Your task to perform on an android device: Clear the cart on ebay. Add "logitech g903" to the cart on ebay, then select checkout. Image 0: 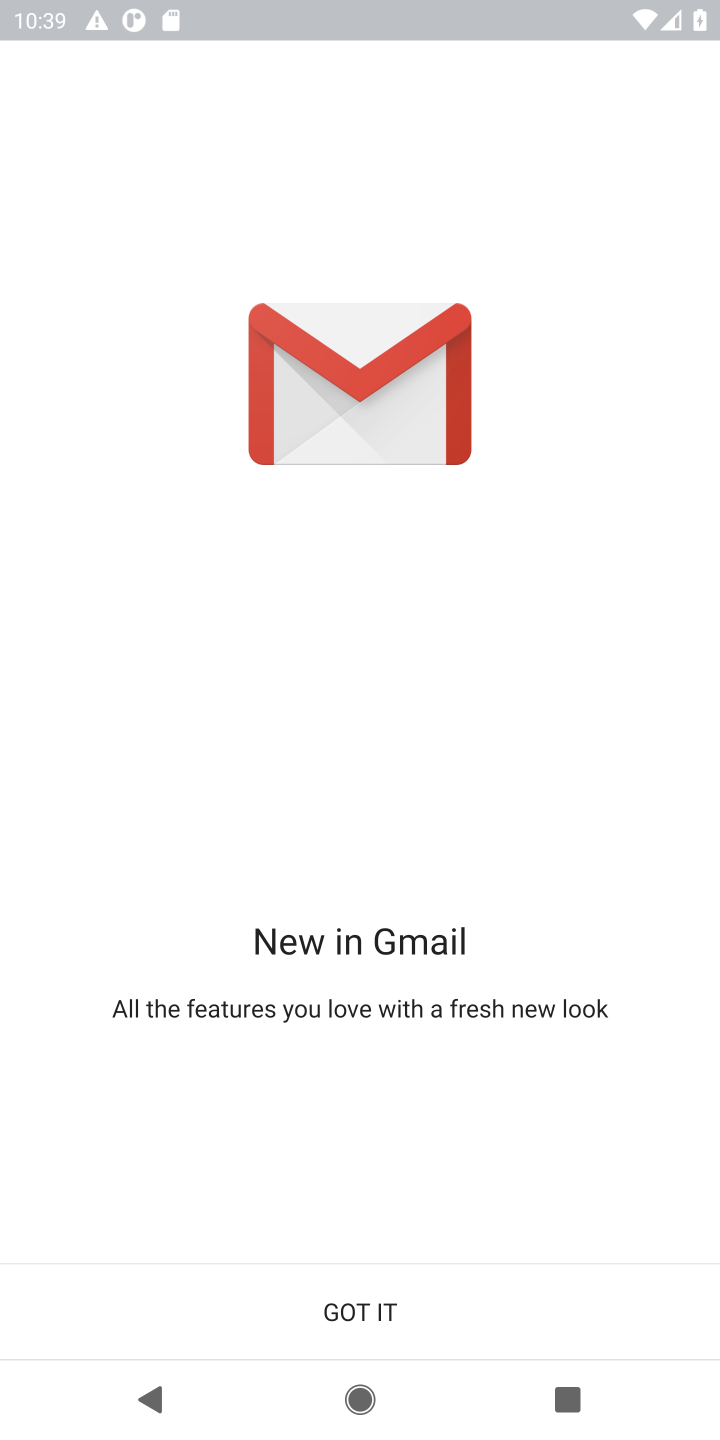
Step 0: press home button
Your task to perform on an android device: Clear the cart on ebay. Add "logitech g903" to the cart on ebay, then select checkout. Image 1: 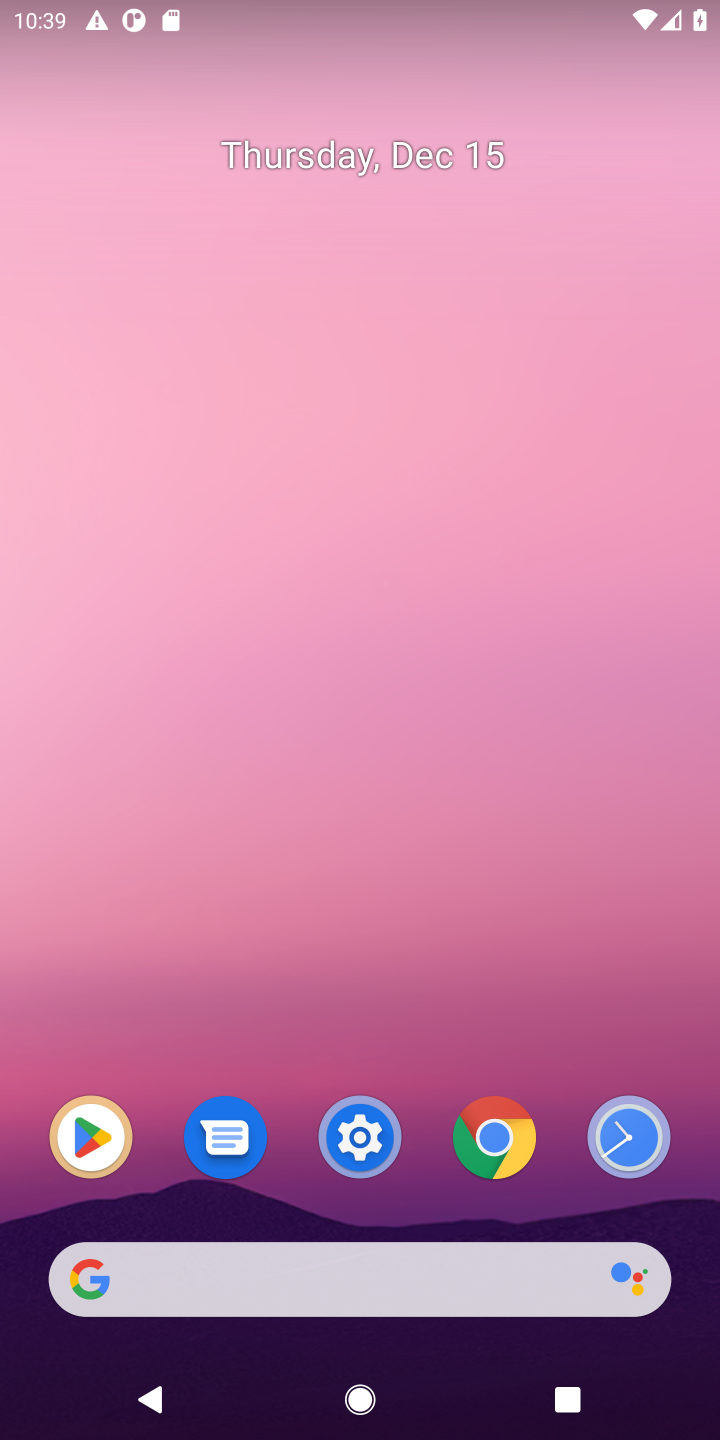
Step 1: drag from (403, 1268) to (331, 65)
Your task to perform on an android device: Clear the cart on ebay. Add "logitech g903" to the cart on ebay, then select checkout. Image 2: 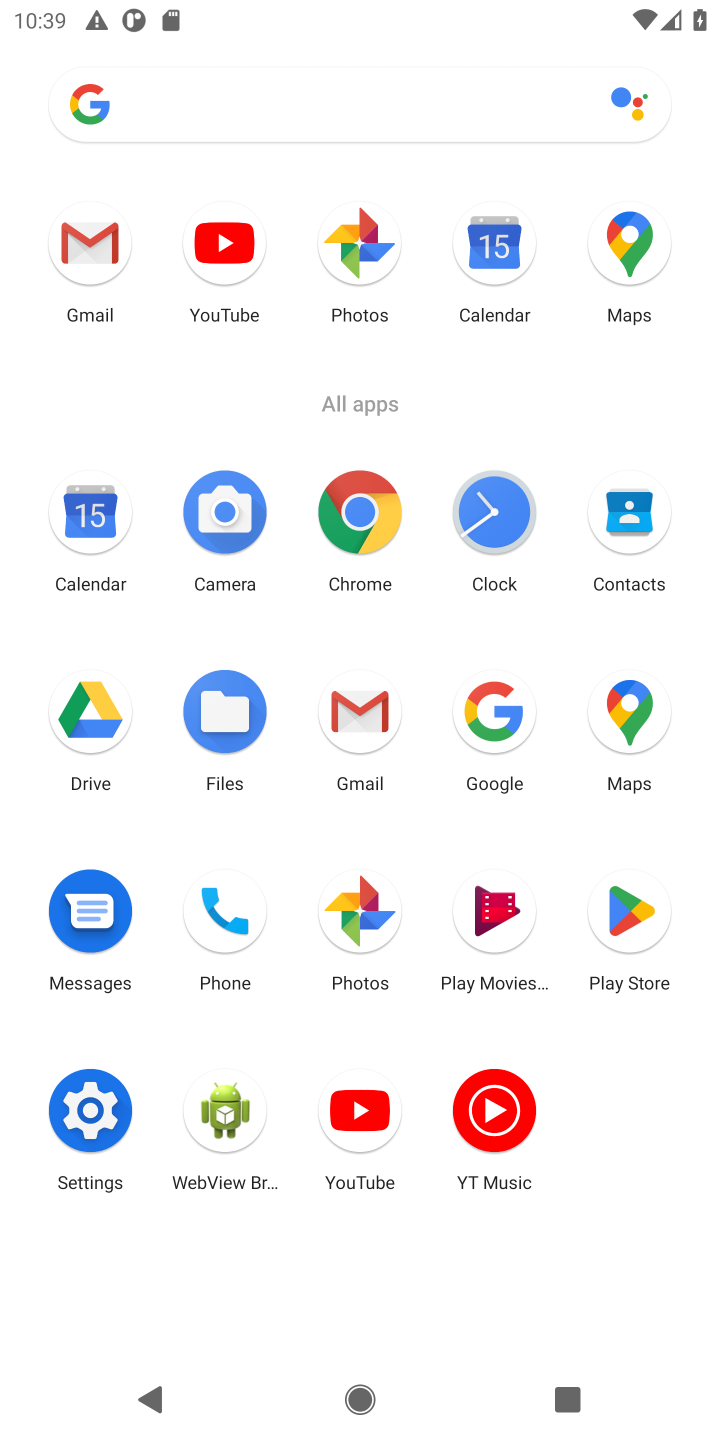
Step 2: click (493, 722)
Your task to perform on an android device: Clear the cart on ebay. Add "logitech g903" to the cart on ebay, then select checkout. Image 3: 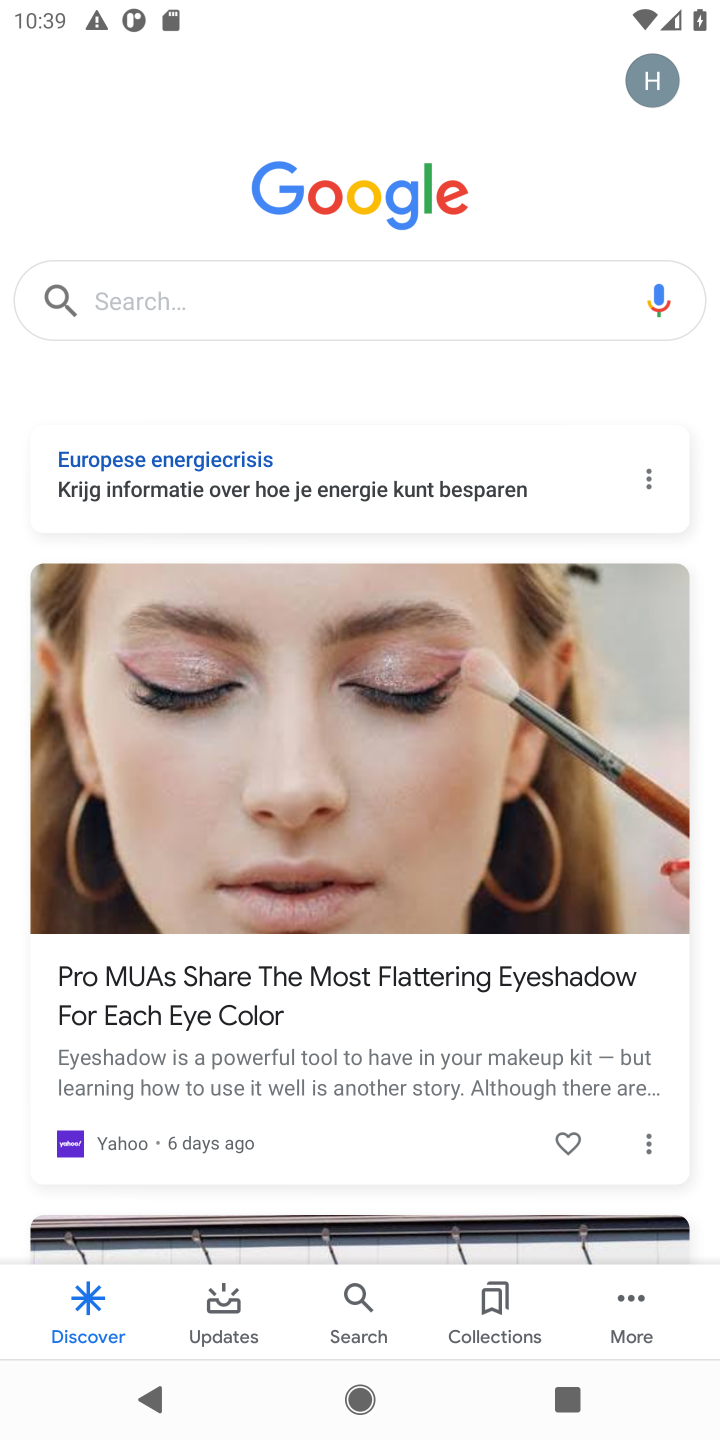
Step 3: click (130, 303)
Your task to perform on an android device: Clear the cart on ebay. Add "logitech g903" to the cart on ebay, then select checkout. Image 4: 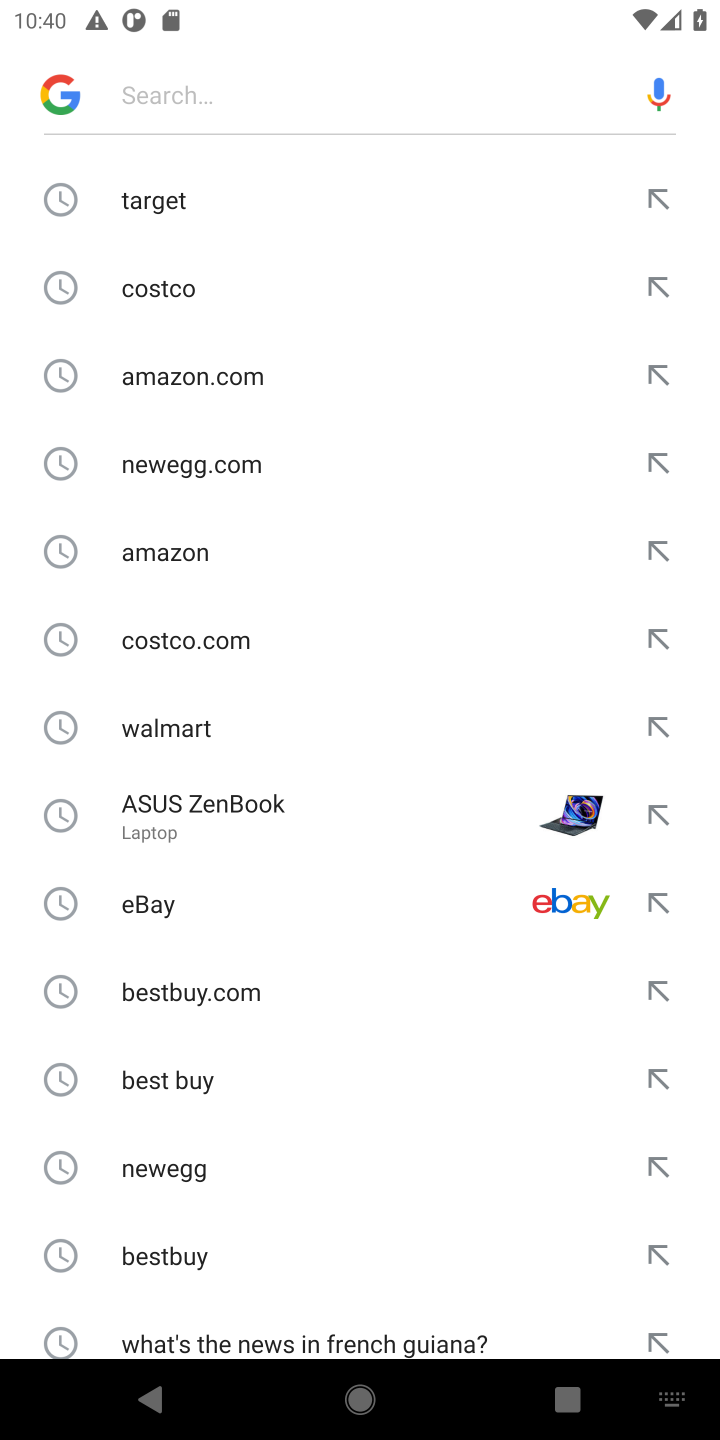
Step 4: click (153, 922)
Your task to perform on an android device: Clear the cart on ebay. Add "logitech g903" to the cart on ebay, then select checkout. Image 5: 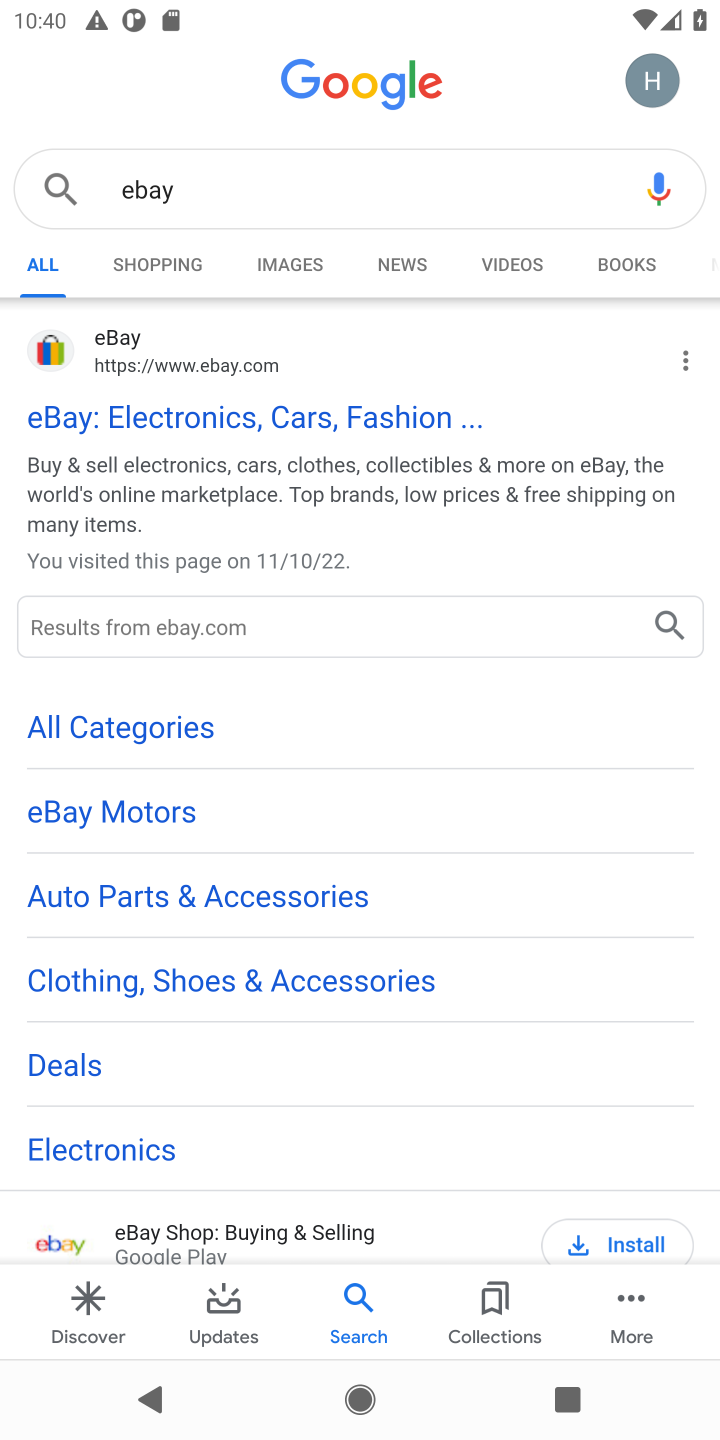
Step 5: click (258, 428)
Your task to perform on an android device: Clear the cart on ebay. Add "logitech g903" to the cart on ebay, then select checkout. Image 6: 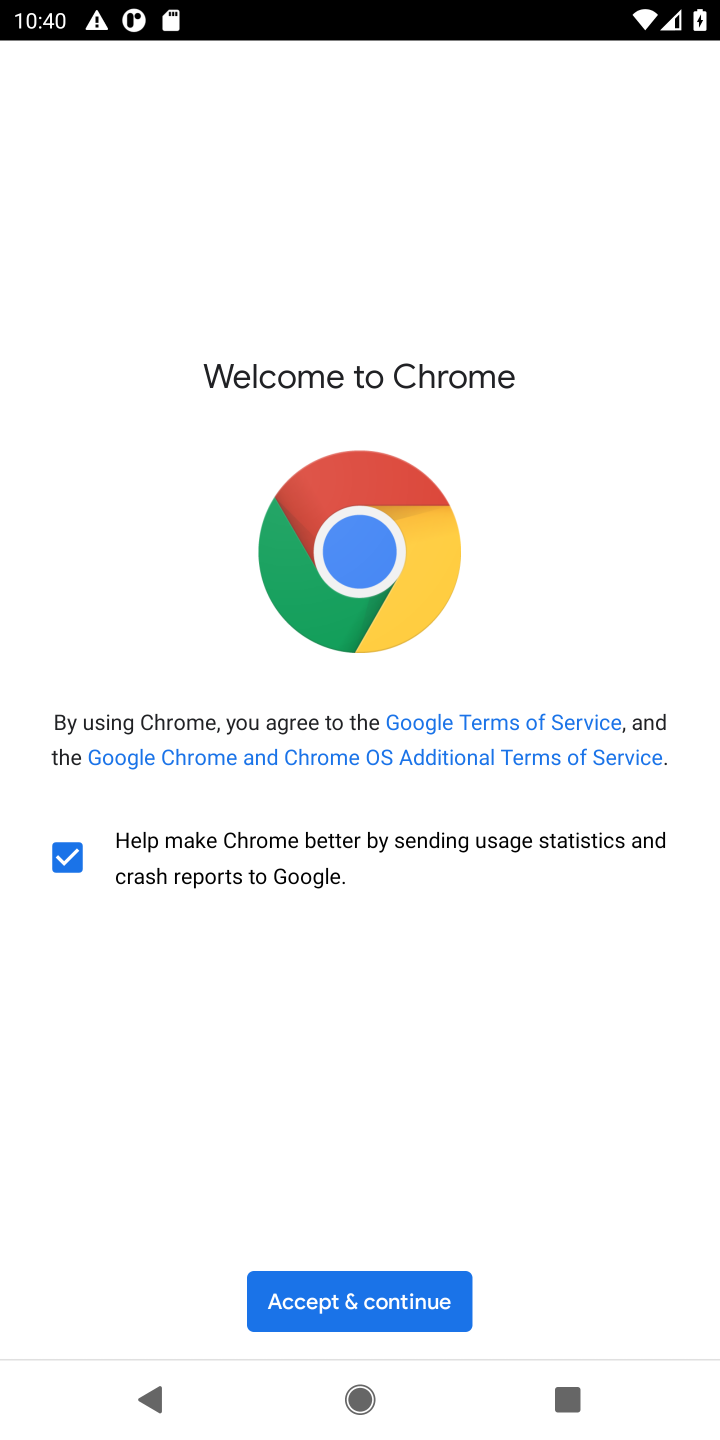
Step 6: click (338, 1306)
Your task to perform on an android device: Clear the cart on ebay. Add "logitech g903" to the cart on ebay, then select checkout. Image 7: 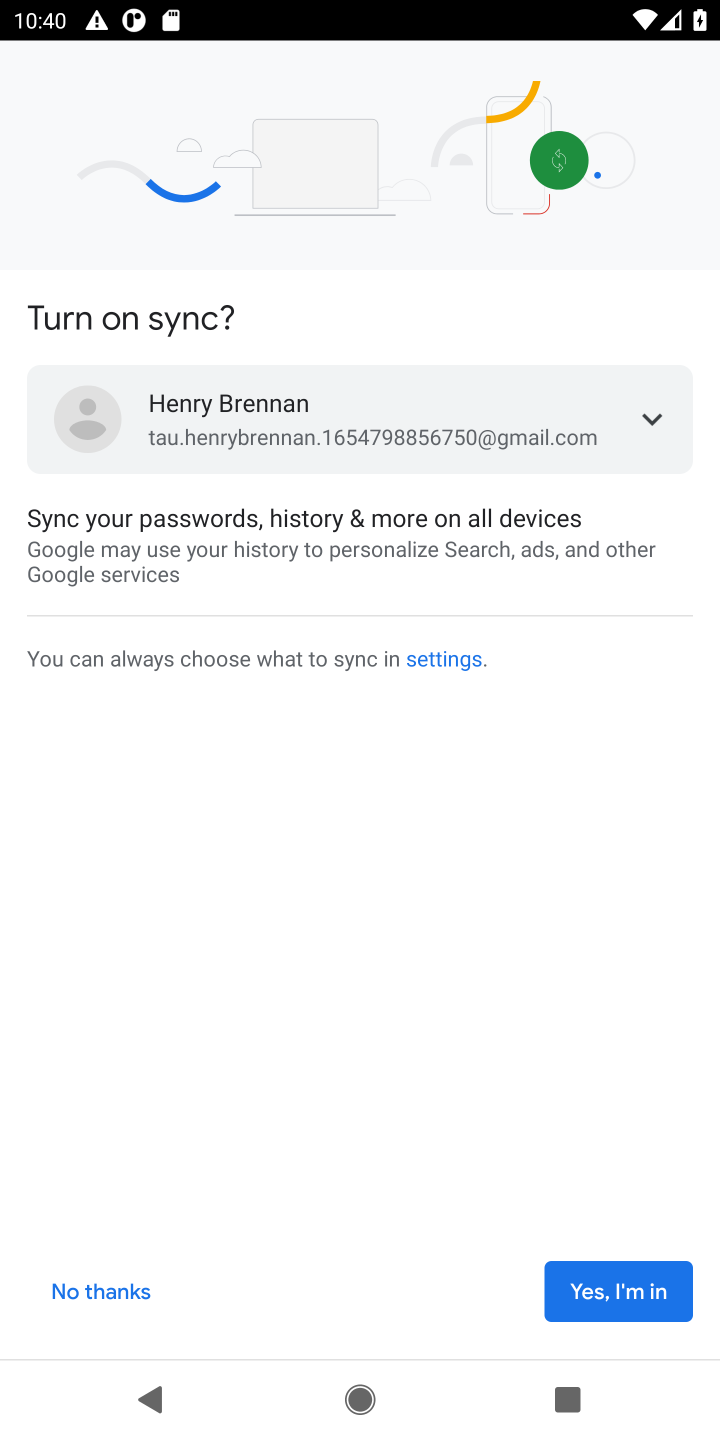
Step 7: click (620, 1286)
Your task to perform on an android device: Clear the cart on ebay. Add "logitech g903" to the cart on ebay, then select checkout. Image 8: 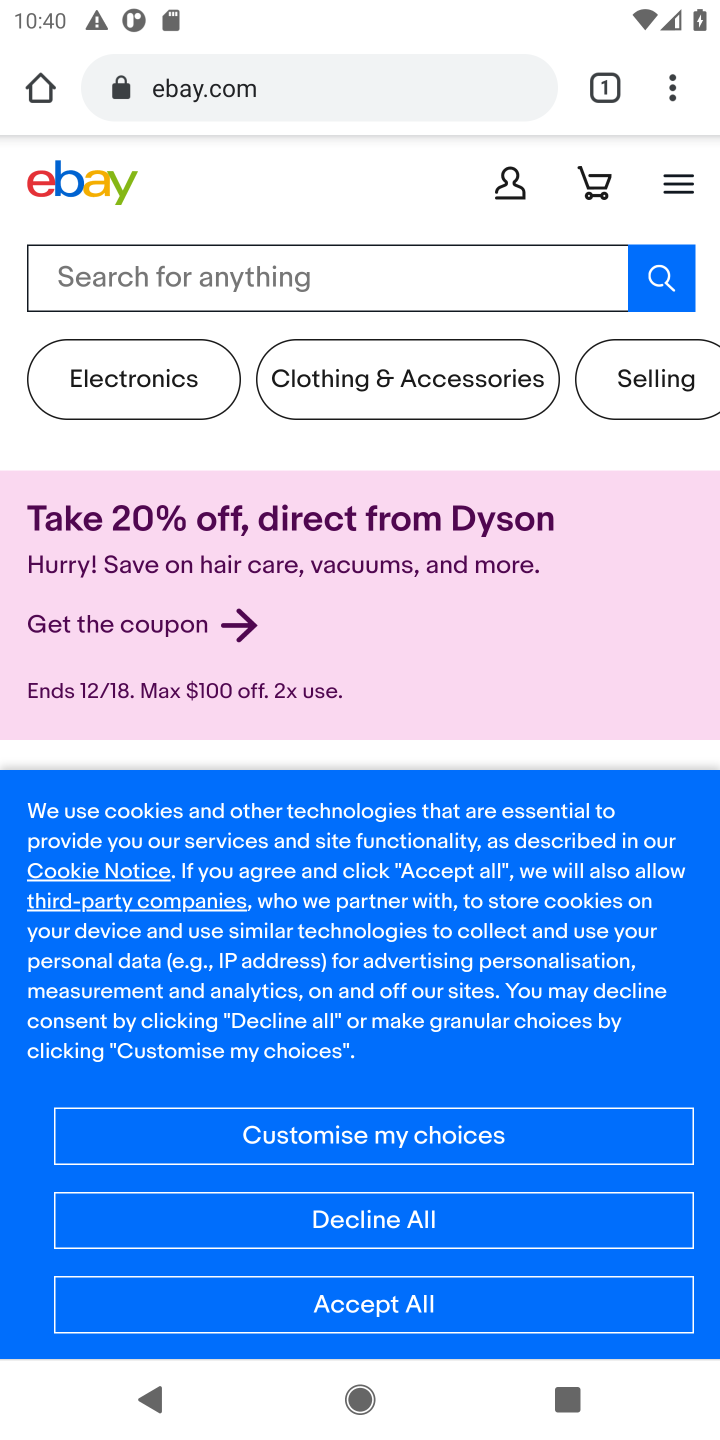
Step 8: click (194, 277)
Your task to perform on an android device: Clear the cart on ebay. Add "logitech g903" to the cart on ebay, then select checkout. Image 9: 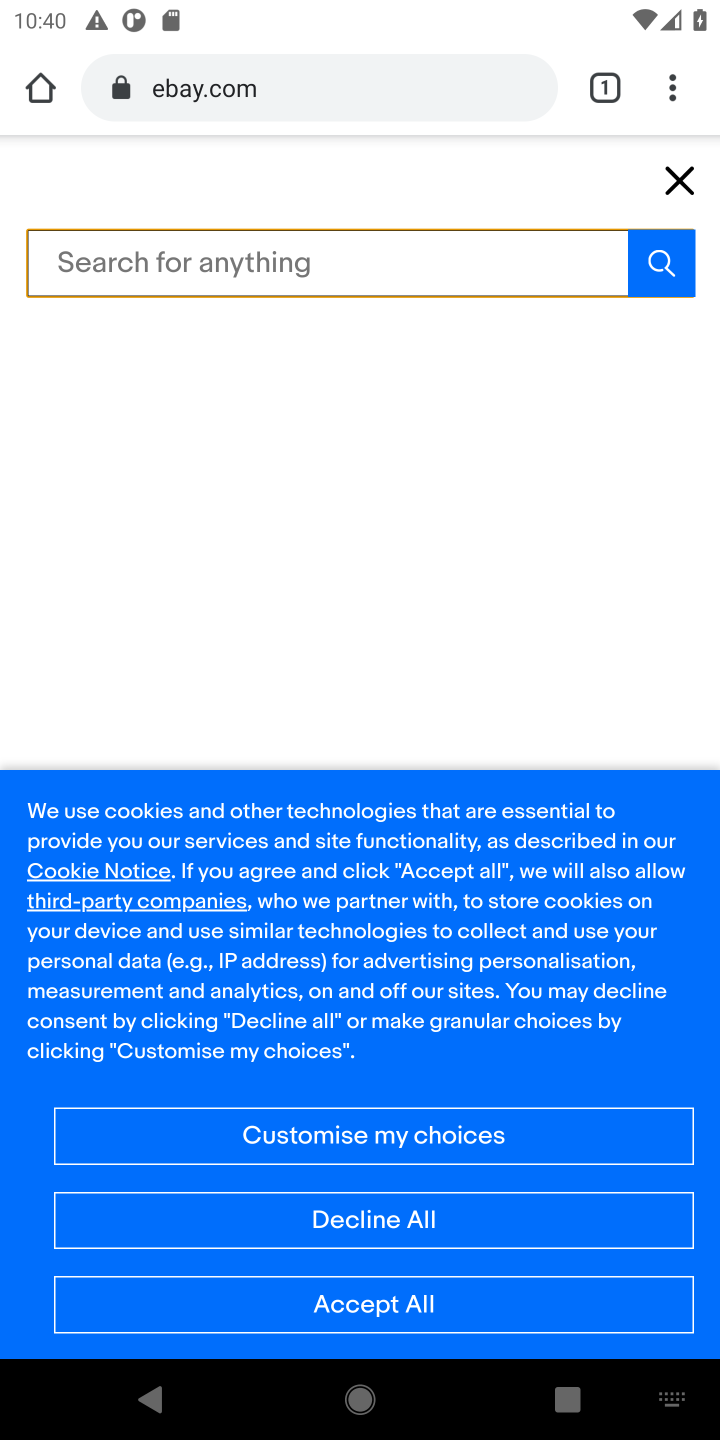
Step 9: click (120, 245)
Your task to perform on an android device: Clear the cart on ebay. Add "logitech g903" to the cart on ebay, then select checkout. Image 10: 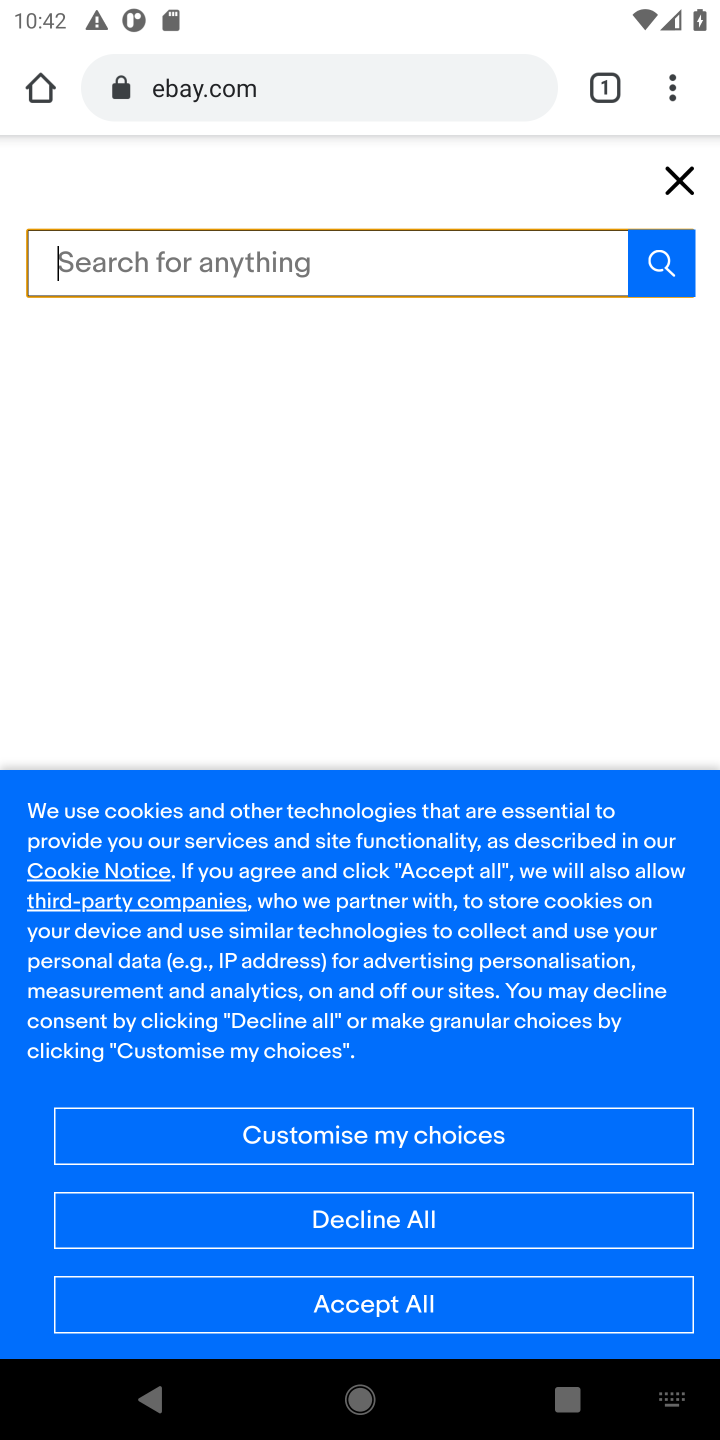
Step 10: type "logitech g903"
Your task to perform on an android device: Clear the cart on ebay. Add "logitech g903" to the cart on ebay, then select checkout. Image 11: 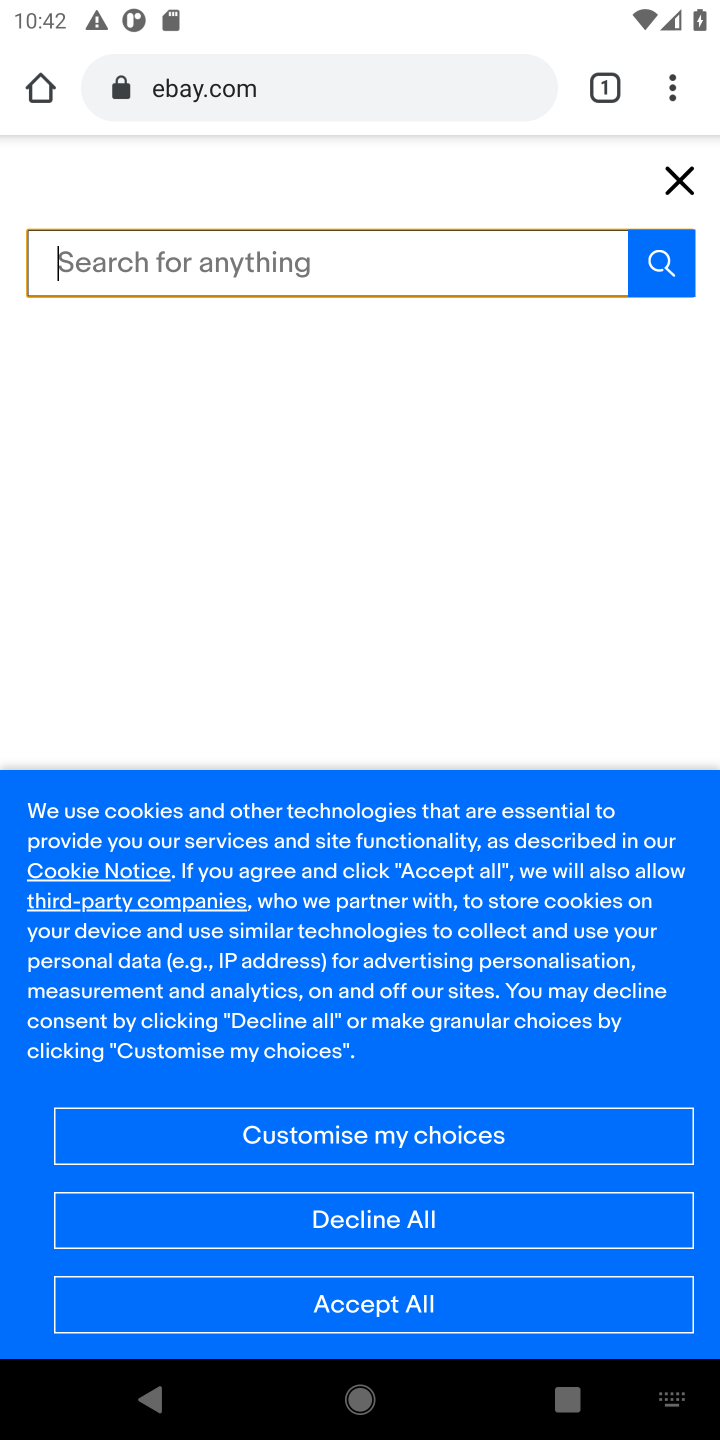
Step 11: click (676, 273)
Your task to perform on an android device: Clear the cart on ebay. Add "logitech g903" to the cart on ebay, then select checkout. Image 12: 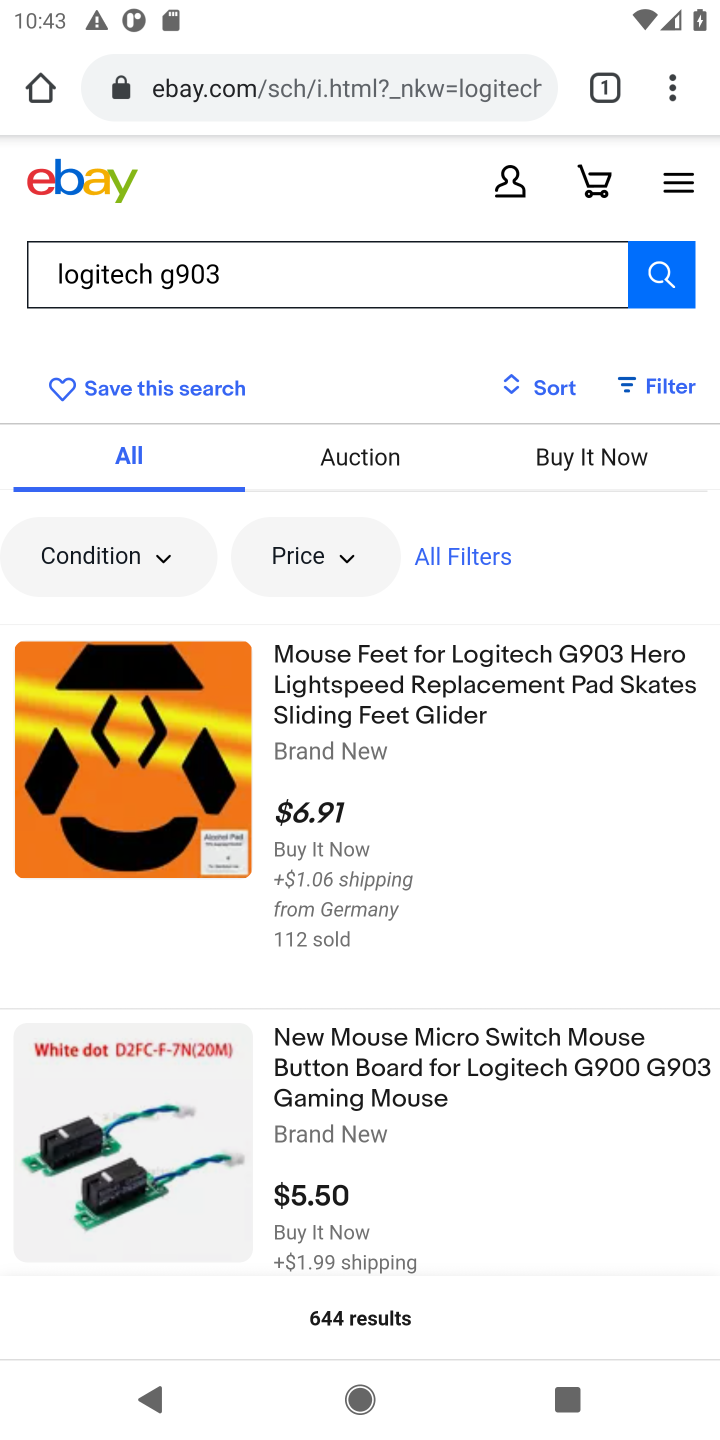
Step 12: click (481, 681)
Your task to perform on an android device: Clear the cart on ebay. Add "logitech g903" to the cart on ebay, then select checkout. Image 13: 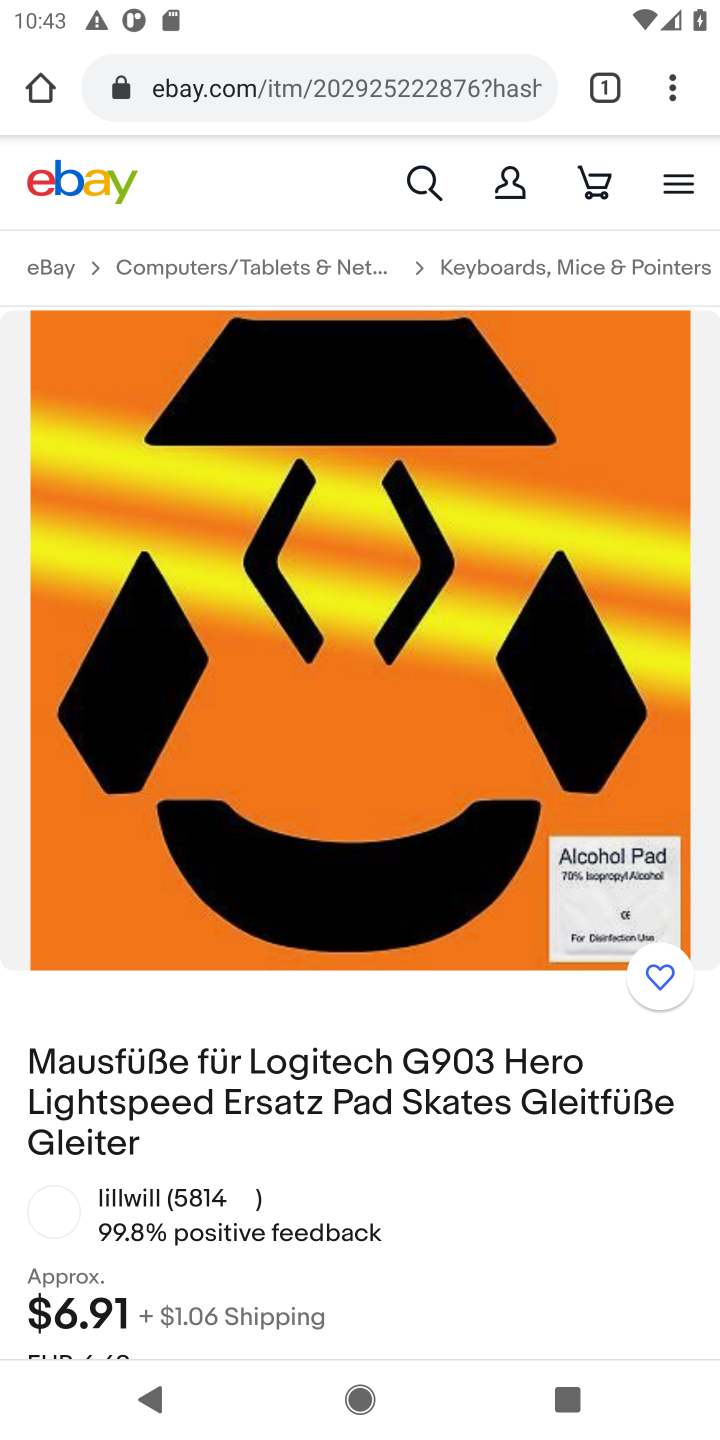
Step 13: drag from (460, 1196) to (353, 491)
Your task to perform on an android device: Clear the cart on ebay. Add "logitech g903" to the cart on ebay, then select checkout. Image 14: 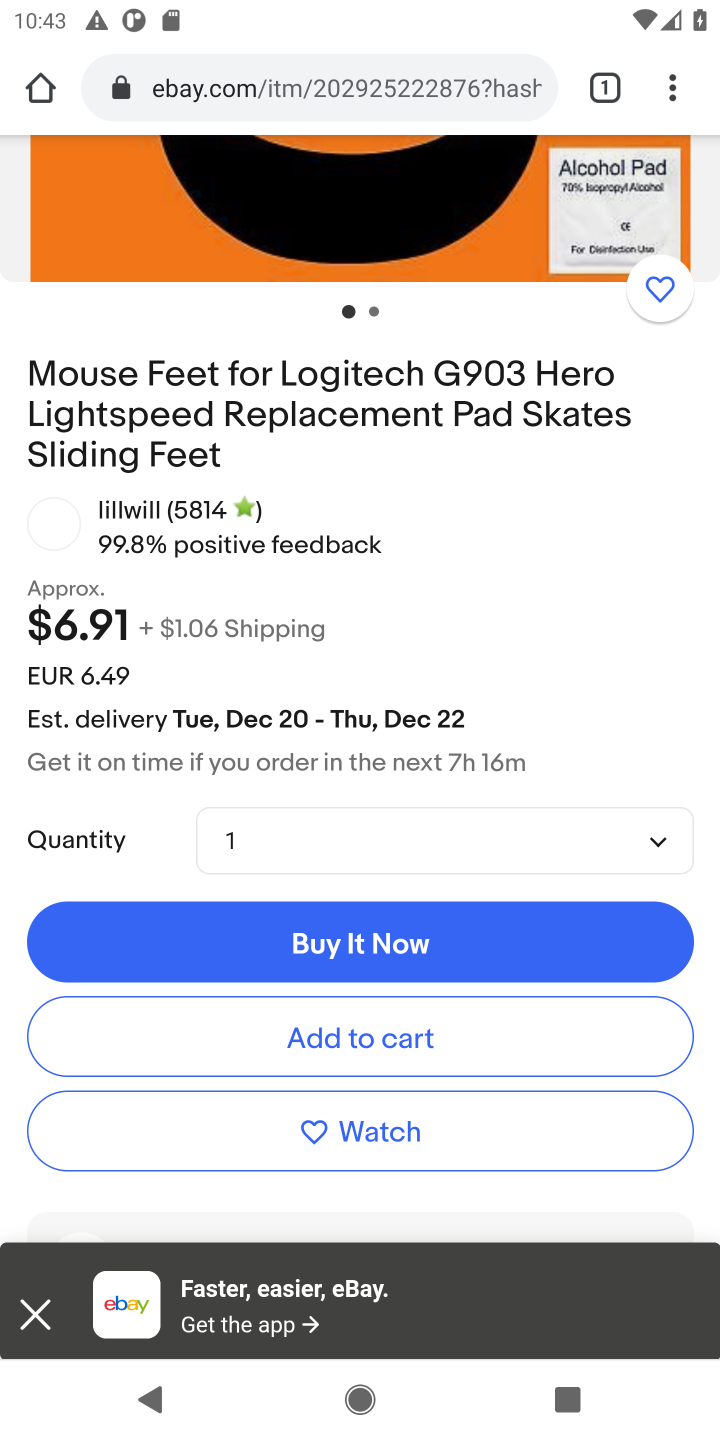
Step 14: click (425, 1050)
Your task to perform on an android device: Clear the cart on ebay. Add "logitech g903" to the cart on ebay, then select checkout. Image 15: 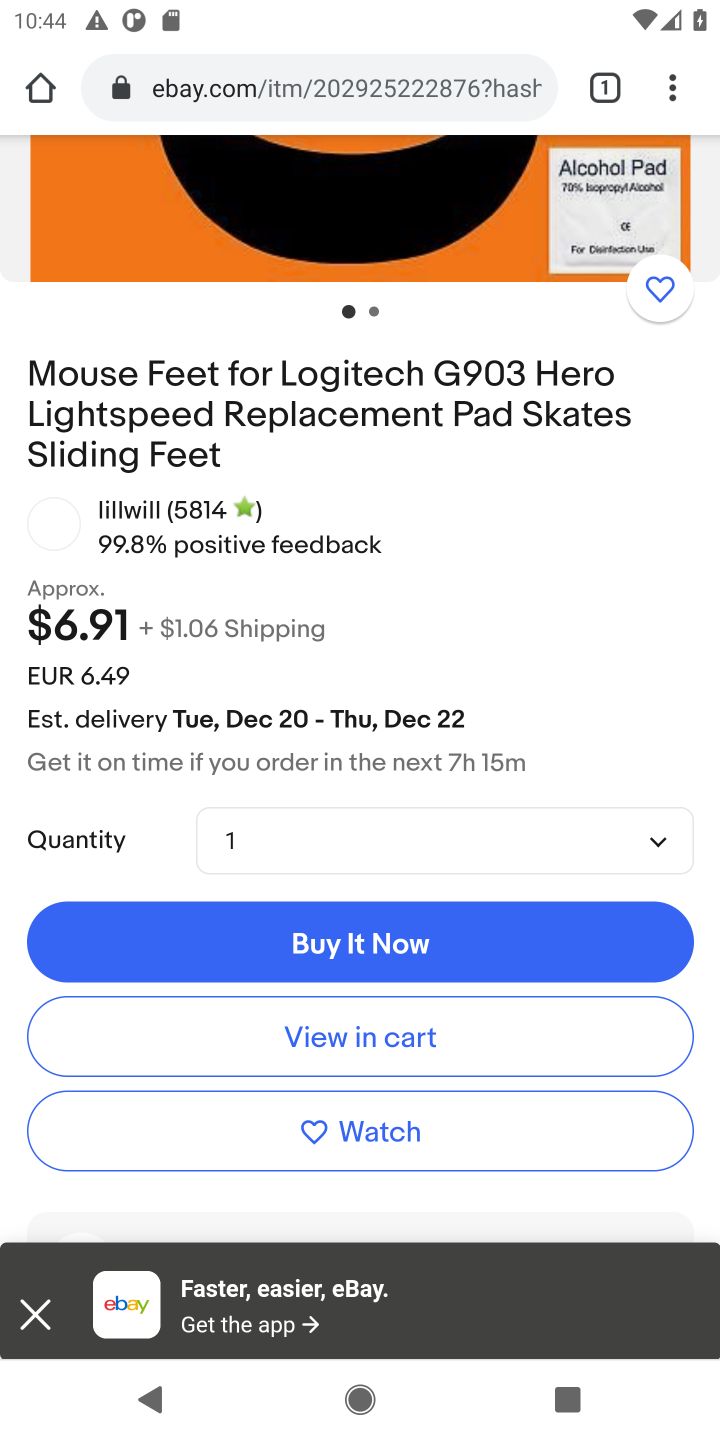
Step 15: click (420, 1034)
Your task to perform on an android device: Clear the cart on ebay. Add "logitech g903" to the cart on ebay, then select checkout. Image 16: 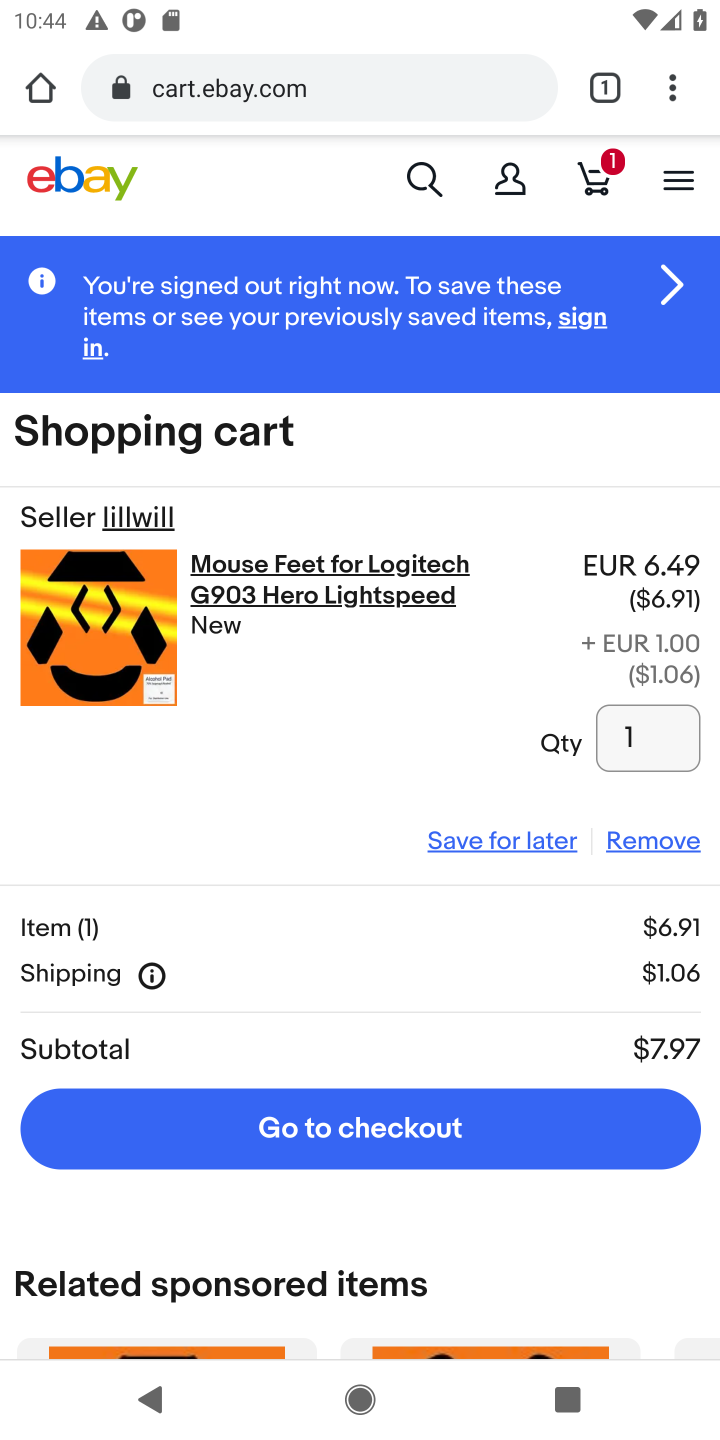
Step 16: click (358, 1130)
Your task to perform on an android device: Clear the cart on ebay. Add "logitech g903" to the cart on ebay, then select checkout. Image 17: 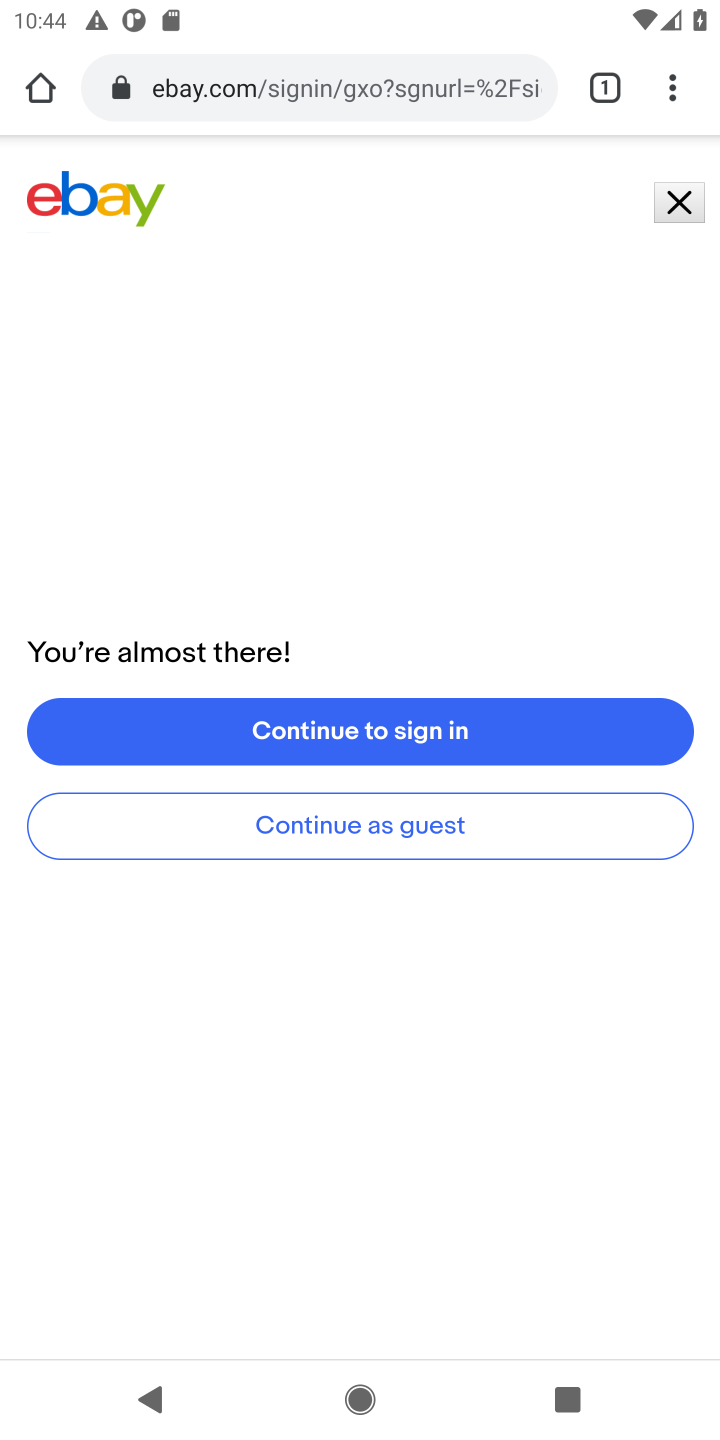
Step 17: click (686, 194)
Your task to perform on an android device: Clear the cart on ebay. Add "logitech g903" to the cart on ebay, then select checkout. Image 18: 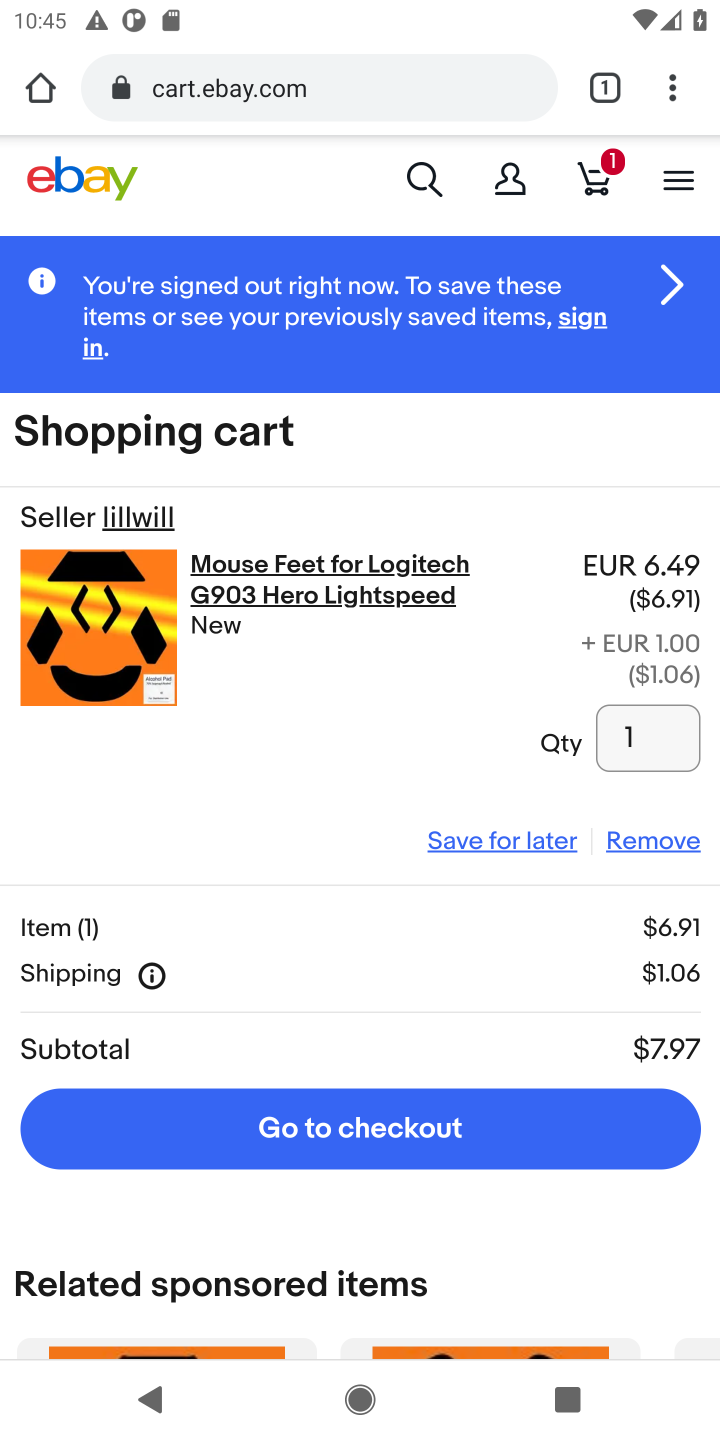
Step 18: task complete